Your task to perform on an android device: find which apps use the phone's location Image 0: 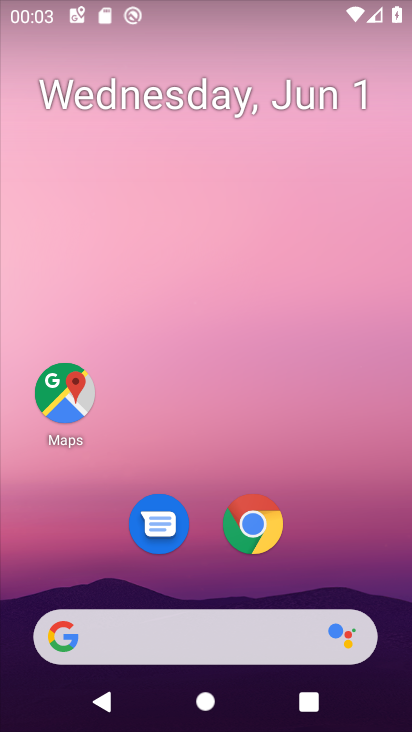
Step 0: drag from (353, 483) to (296, 69)
Your task to perform on an android device: find which apps use the phone's location Image 1: 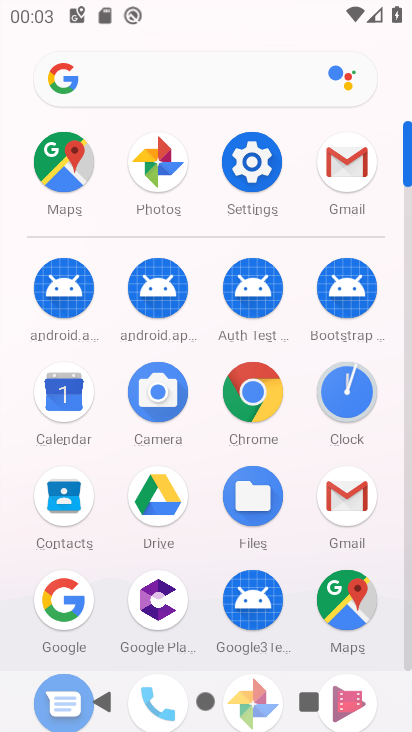
Step 1: click (266, 145)
Your task to perform on an android device: find which apps use the phone's location Image 2: 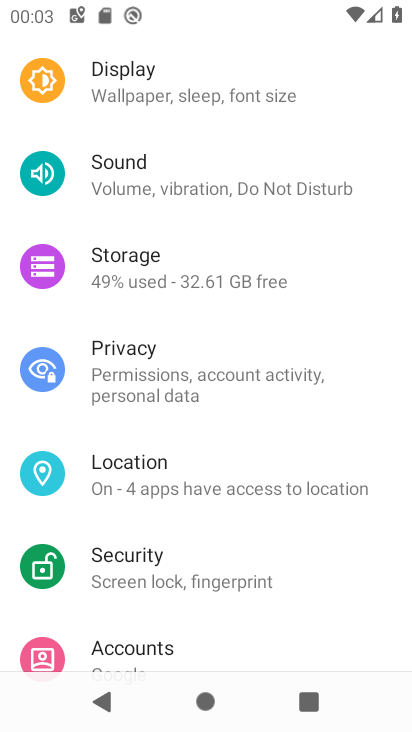
Step 2: click (196, 471)
Your task to perform on an android device: find which apps use the phone's location Image 3: 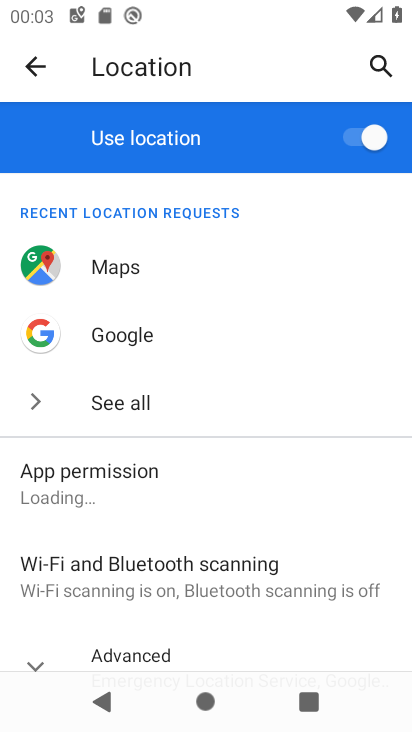
Step 3: click (121, 480)
Your task to perform on an android device: find which apps use the phone's location Image 4: 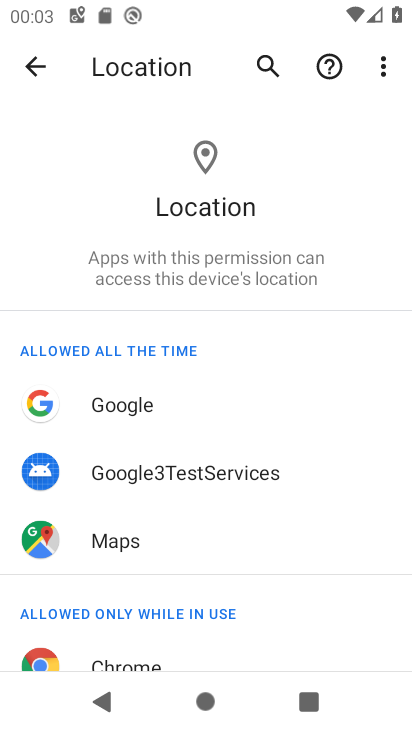
Step 4: task complete